Your task to perform on an android device: turn on airplane mode Image 0: 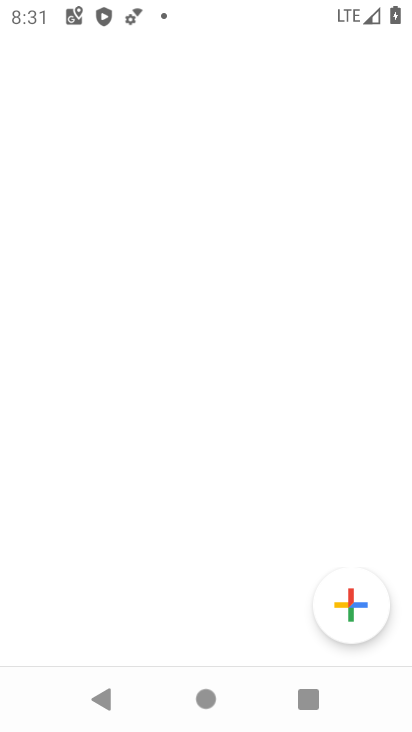
Step 0: press home button
Your task to perform on an android device: turn on airplane mode Image 1: 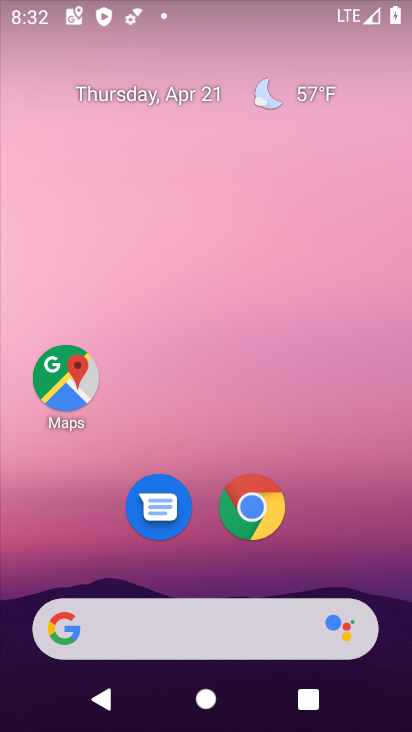
Step 1: drag from (270, 0) to (286, 541)
Your task to perform on an android device: turn on airplane mode Image 2: 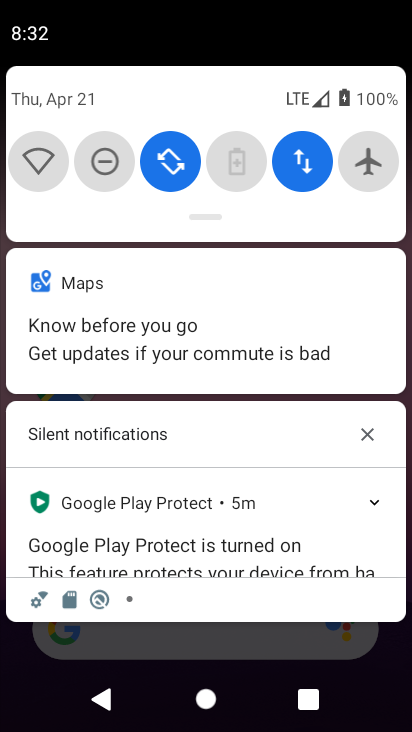
Step 2: click (366, 167)
Your task to perform on an android device: turn on airplane mode Image 3: 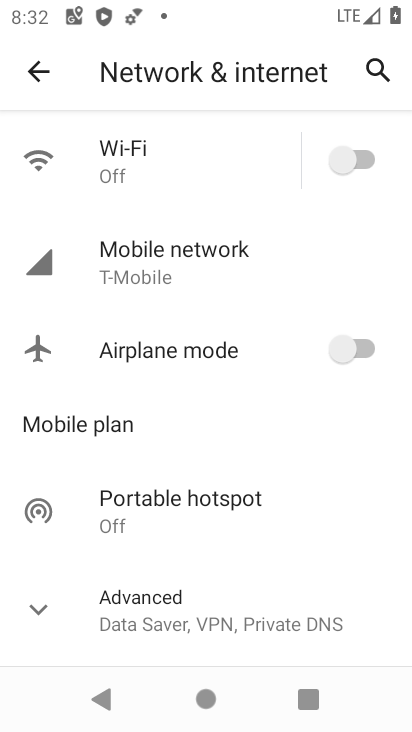
Step 3: click (344, 347)
Your task to perform on an android device: turn on airplane mode Image 4: 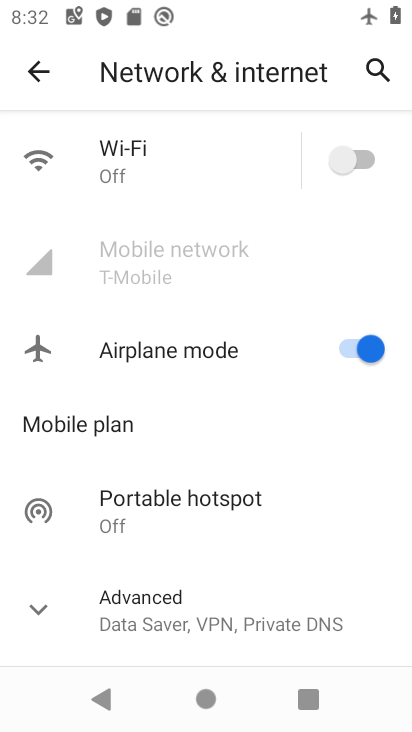
Step 4: task complete